Your task to perform on an android device: Open network settings Image 0: 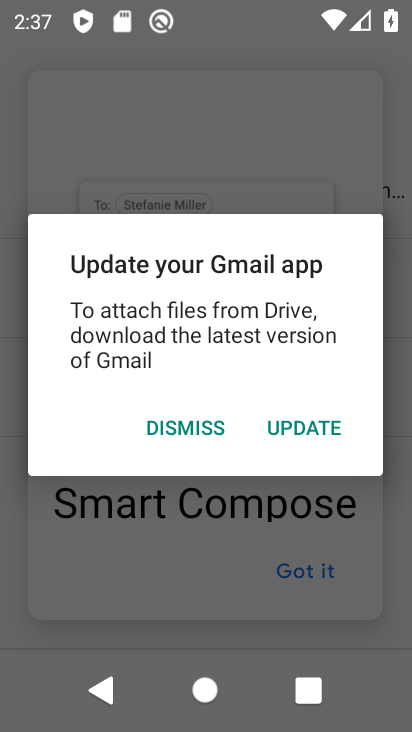
Step 0: press home button
Your task to perform on an android device: Open network settings Image 1: 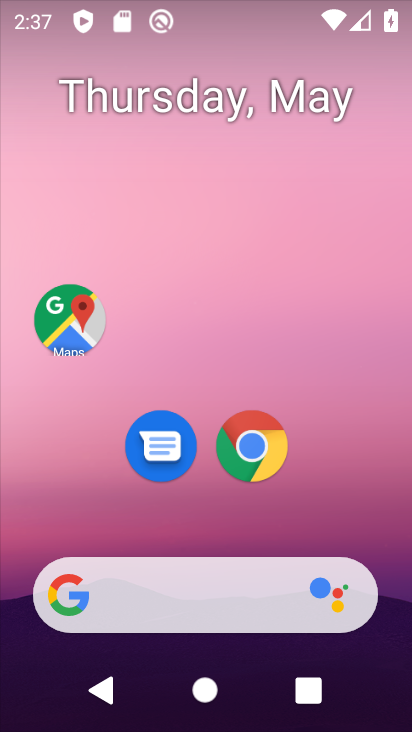
Step 1: drag from (344, 542) to (400, 3)
Your task to perform on an android device: Open network settings Image 2: 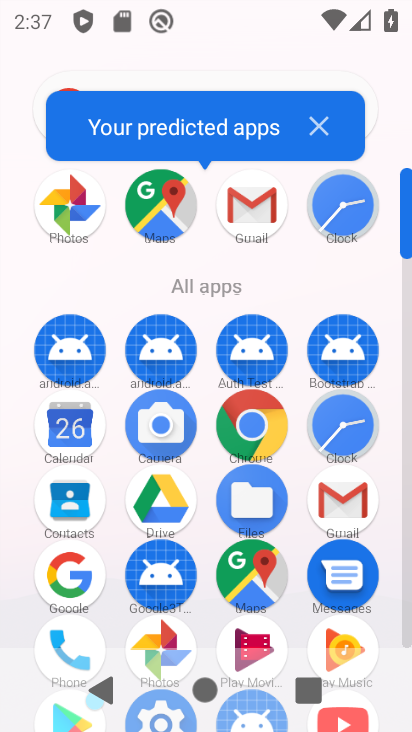
Step 2: drag from (406, 493) to (410, 423)
Your task to perform on an android device: Open network settings Image 3: 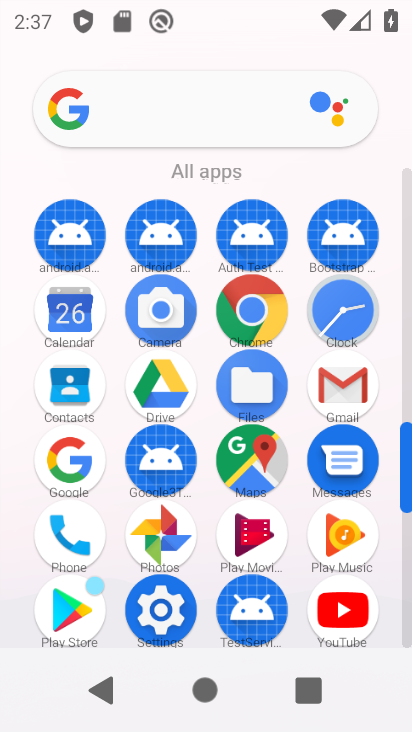
Step 3: click (160, 603)
Your task to perform on an android device: Open network settings Image 4: 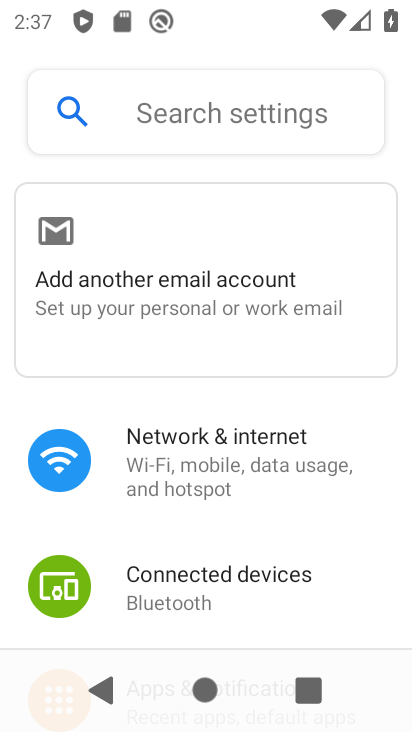
Step 4: click (221, 447)
Your task to perform on an android device: Open network settings Image 5: 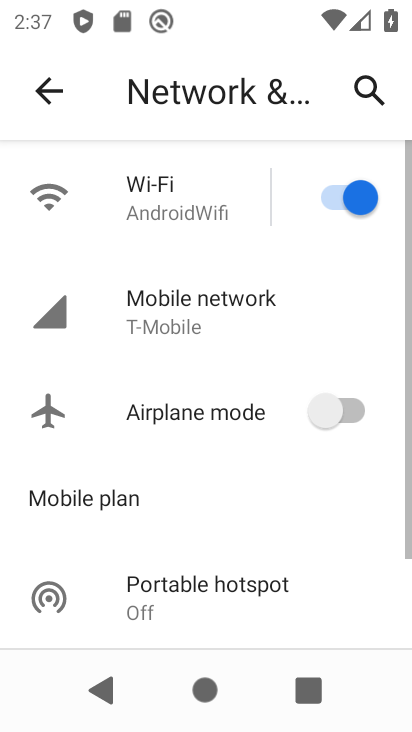
Step 5: click (153, 331)
Your task to perform on an android device: Open network settings Image 6: 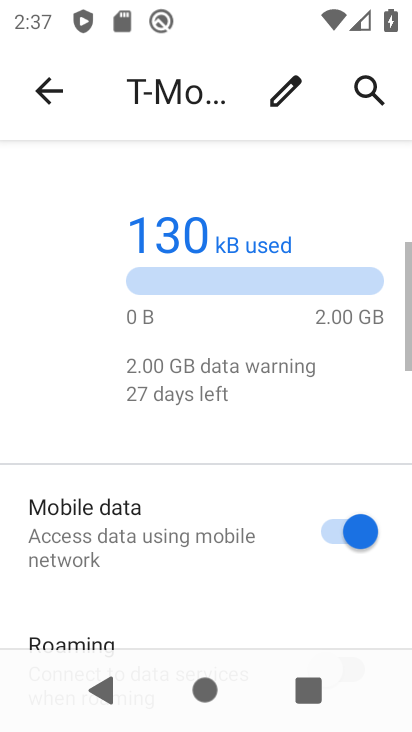
Step 6: drag from (173, 536) to (131, 49)
Your task to perform on an android device: Open network settings Image 7: 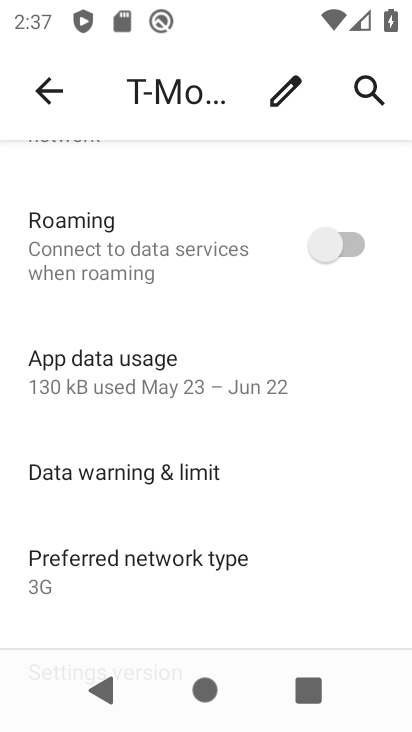
Step 7: drag from (126, 507) to (90, 77)
Your task to perform on an android device: Open network settings Image 8: 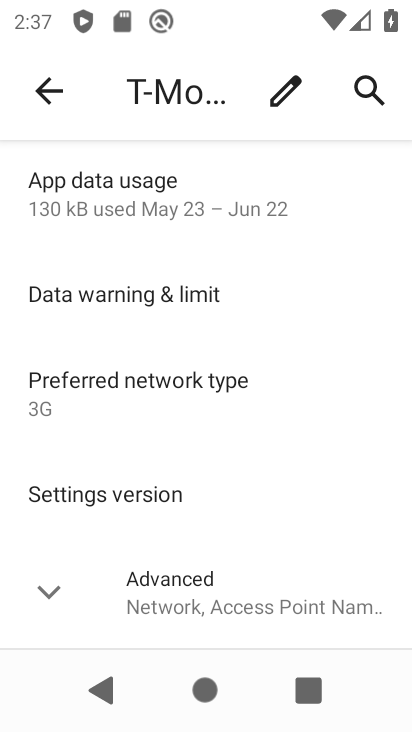
Step 8: click (51, 602)
Your task to perform on an android device: Open network settings Image 9: 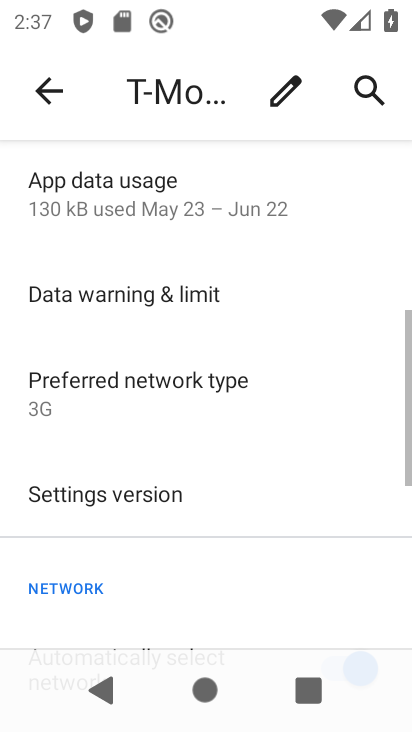
Step 9: task complete